Your task to perform on an android device: Go to calendar. Show me events next week Image 0: 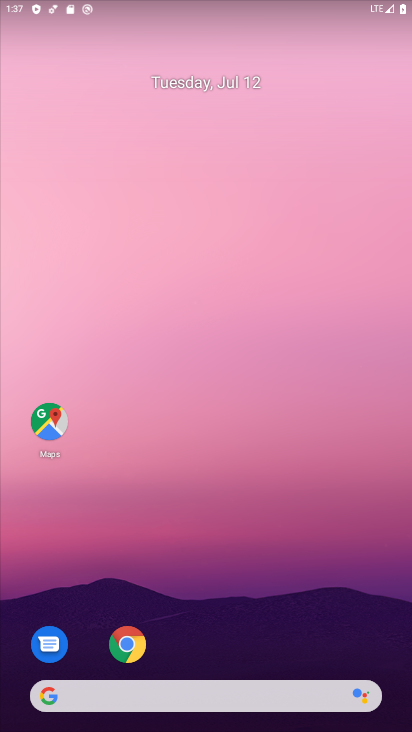
Step 0: drag from (210, 672) to (117, 9)
Your task to perform on an android device: Go to calendar. Show me events next week Image 1: 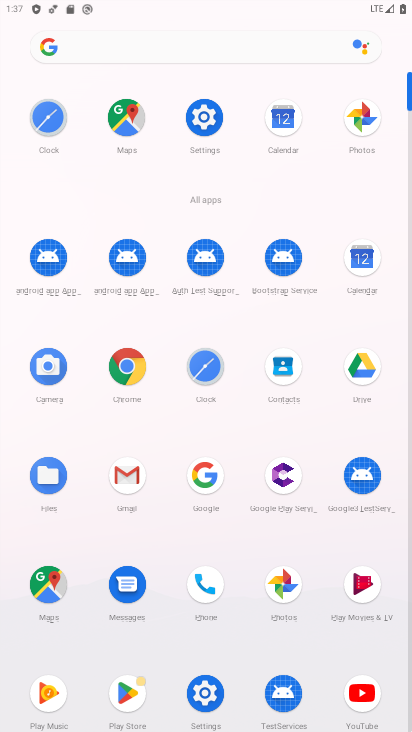
Step 1: click (353, 254)
Your task to perform on an android device: Go to calendar. Show me events next week Image 2: 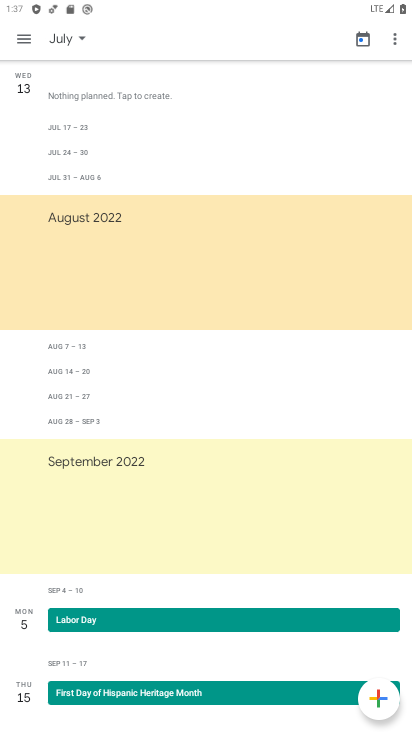
Step 2: click (20, 35)
Your task to perform on an android device: Go to calendar. Show me events next week Image 3: 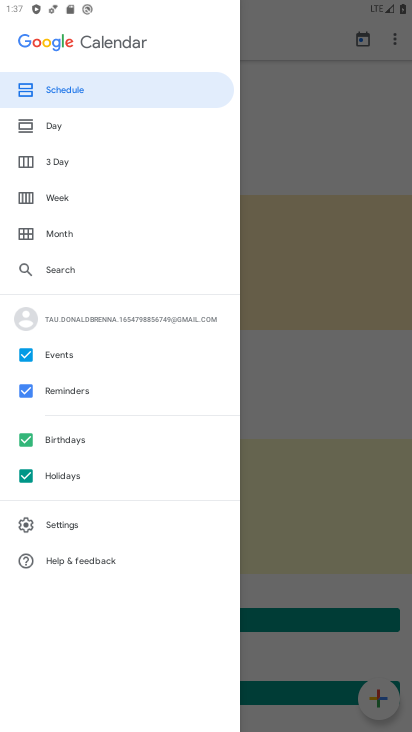
Step 3: click (61, 190)
Your task to perform on an android device: Go to calendar. Show me events next week Image 4: 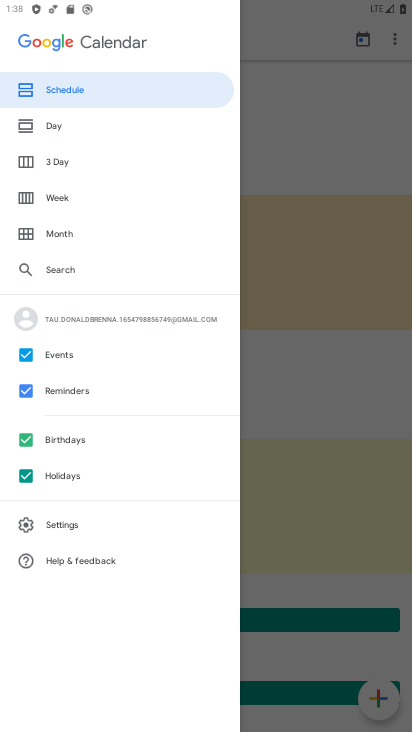
Step 4: click (61, 188)
Your task to perform on an android device: Go to calendar. Show me events next week Image 5: 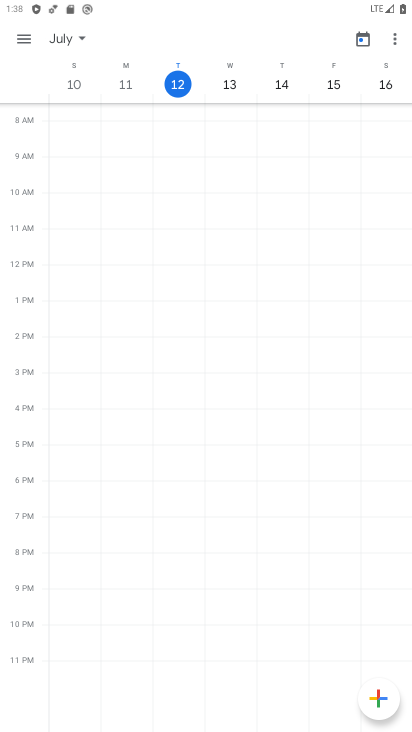
Step 5: task complete